Your task to perform on an android device: Open location settings Image 0: 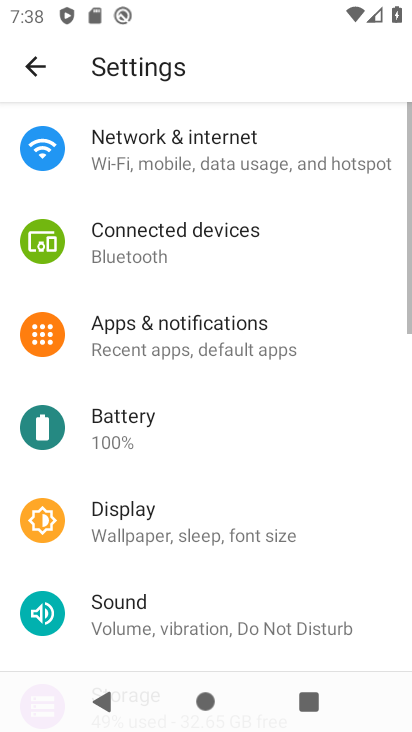
Step 0: drag from (190, 500) to (208, 203)
Your task to perform on an android device: Open location settings Image 1: 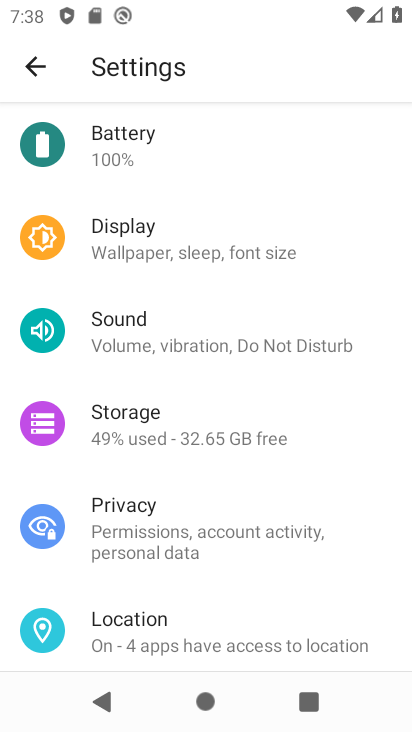
Step 1: drag from (205, 570) to (232, 350)
Your task to perform on an android device: Open location settings Image 2: 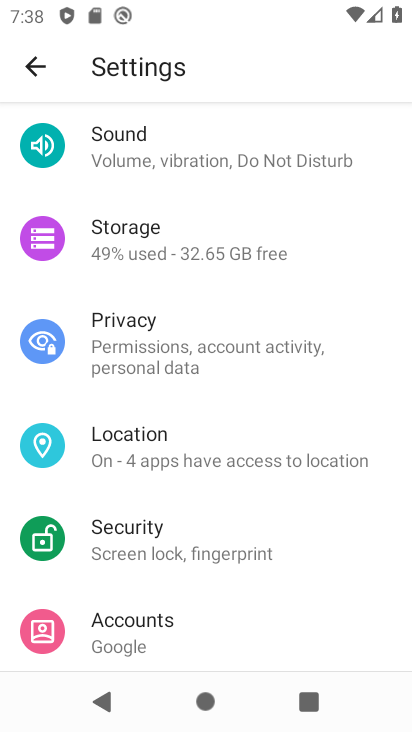
Step 2: click (230, 456)
Your task to perform on an android device: Open location settings Image 3: 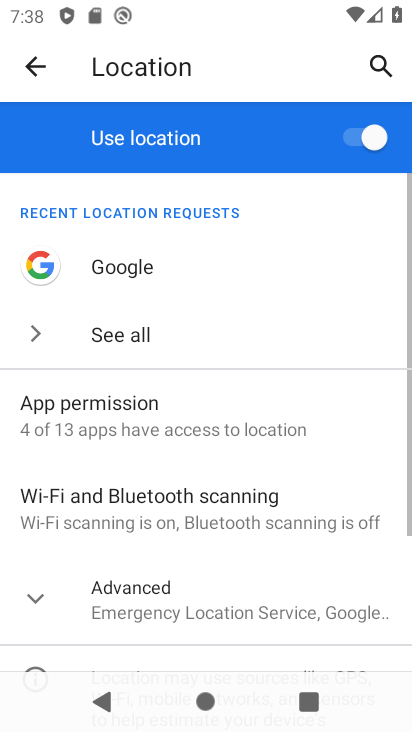
Step 3: task complete